Your task to perform on an android device: Open display settings Image 0: 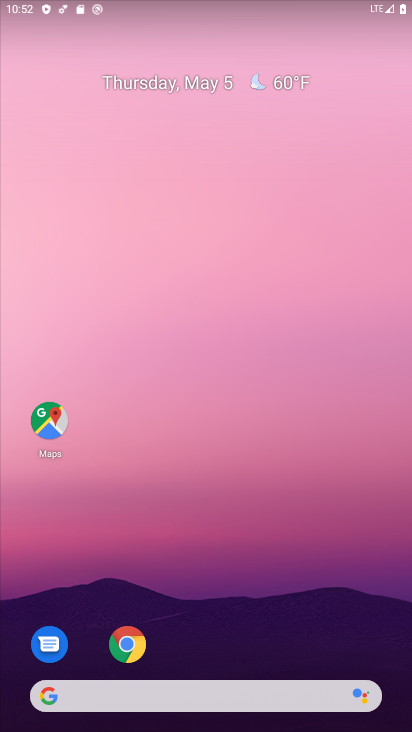
Step 0: drag from (351, 627) to (349, 172)
Your task to perform on an android device: Open display settings Image 1: 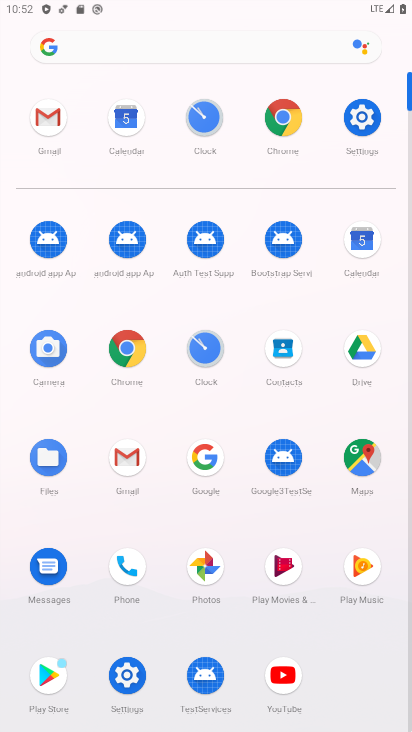
Step 1: click (141, 670)
Your task to perform on an android device: Open display settings Image 2: 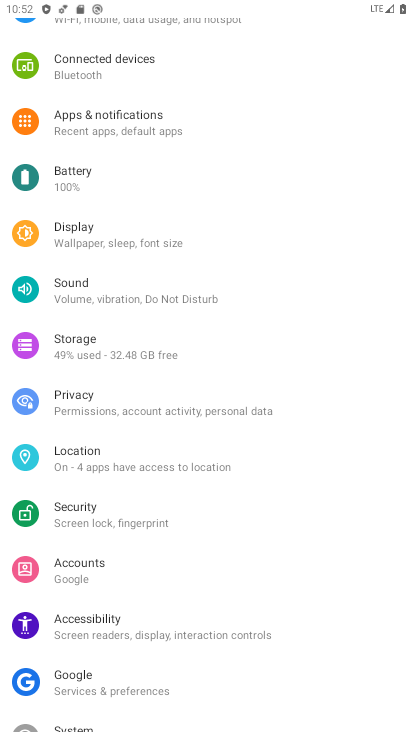
Step 2: click (139, 232)
Your task to perform on an android device: Open display settings Image 3: 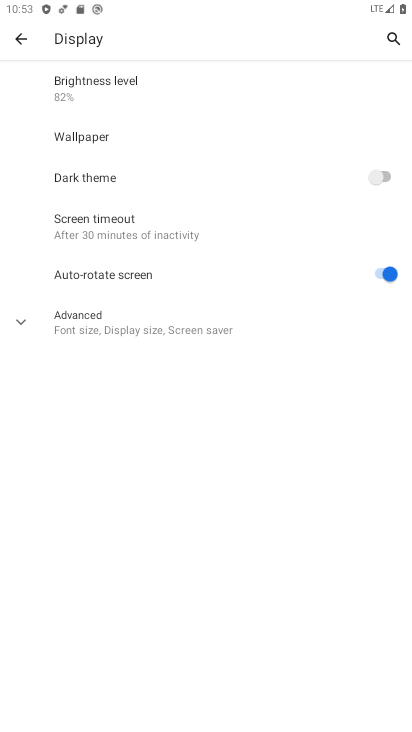
Step 3: click (69, 316)
Your task to perform on an android device: Open display settings Image 4: 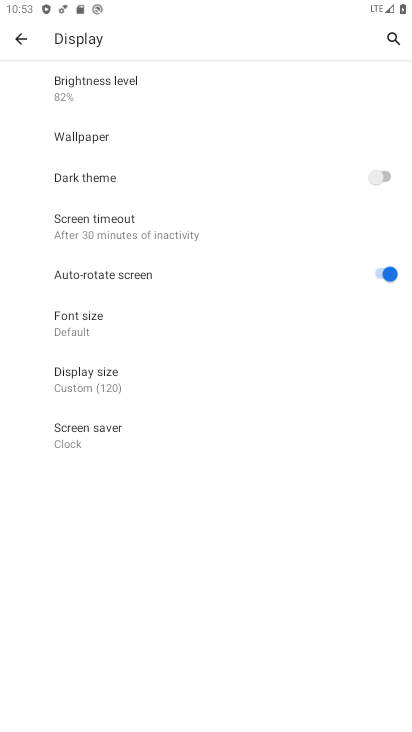
Step 4: task complete